Your task to perform on an android device: open app "Google Calendar" (install if not already installed) Image 0: 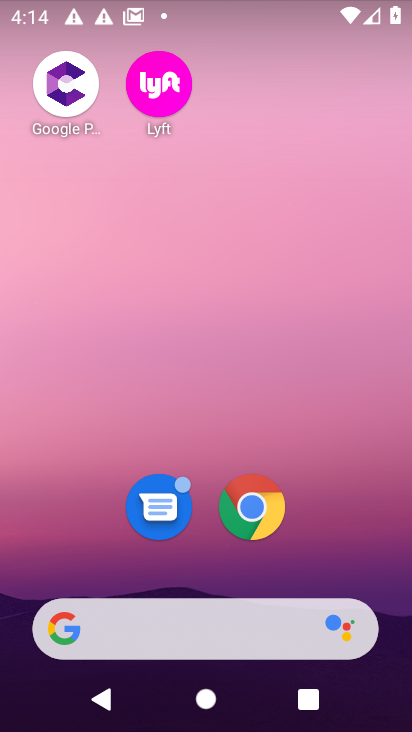
Step 0: drag from (330, 445) to (273, 9)
Your task to perform on an android device: open app "Google Calendar" (install if not already installed) Image 1: 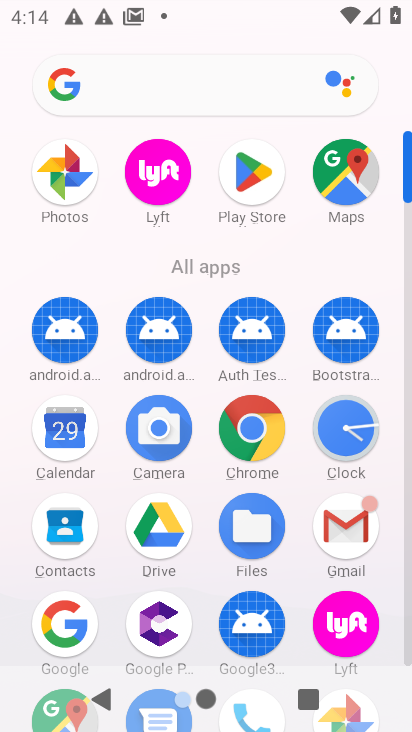
Step 1: click (243, 182)
Your task to perform on an android device: open app "Google Calendar" (install if not already installed) Image 2: 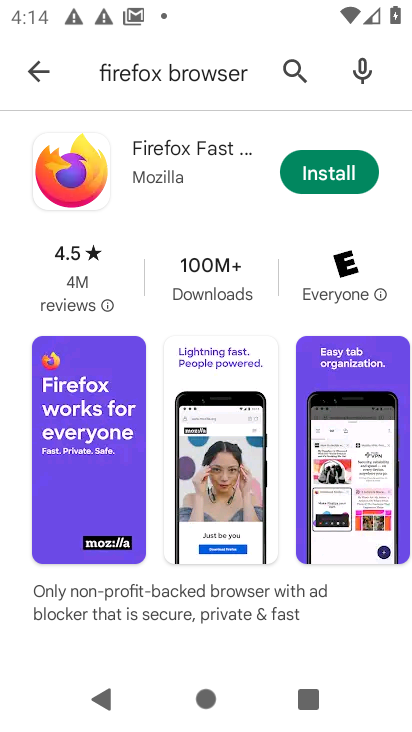
Step 2: click (286, 71)
Your task to perform on an android device: open app "Google Calendar" (install if not already installed) Image 3: 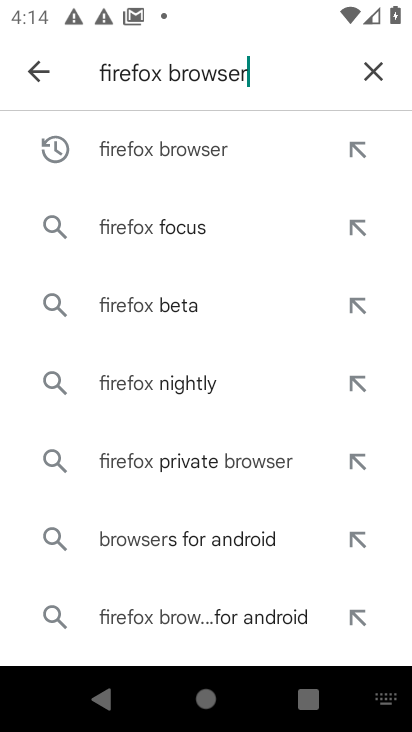
Step 3: click (373, 67)
Your task to perform on an android device: open app "Google Calendar" (install if not already installed) Image 4: 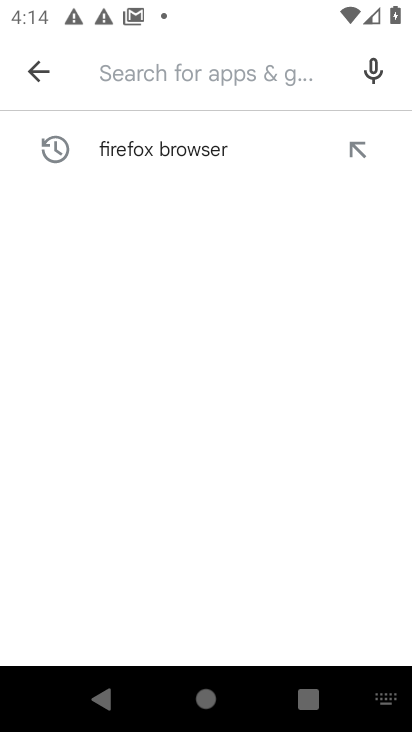
Step 4: type "Google Calendar"
Your task to perform on an android device: open app "Google Calendar" (install if not already installed) Image 5: 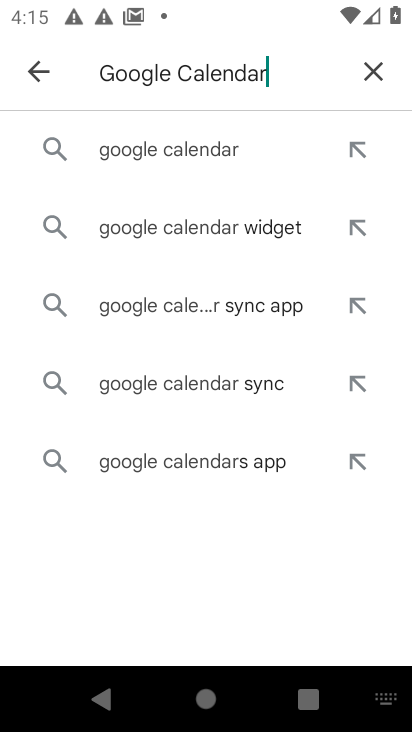
Step 5: click (152, 153)
Your task to perform on an android device: open app "Google Calendar" (install if not already installed) Image 6: 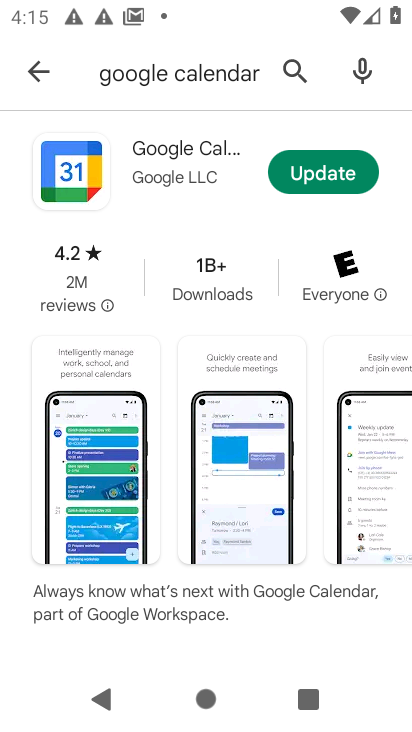
Step 6: click (95, 160)
Your task to perform on an android device: open app "Google Calendar" (install if not already installed) Image 7: 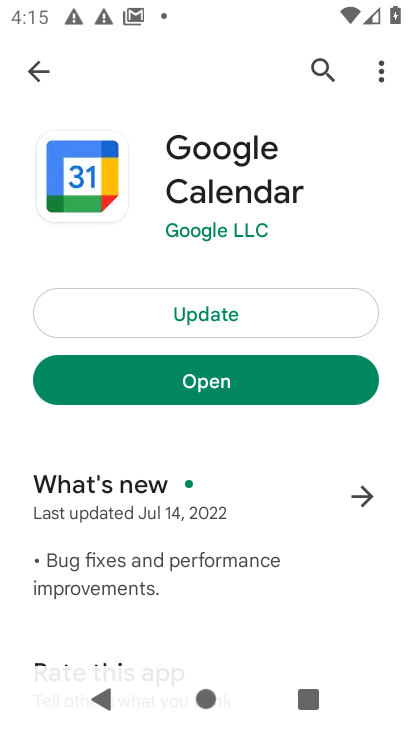
Step 7: click (165, 377)
Your task to perform on an android device: open app "Google Calendar" (install if not already installed) Image 8: 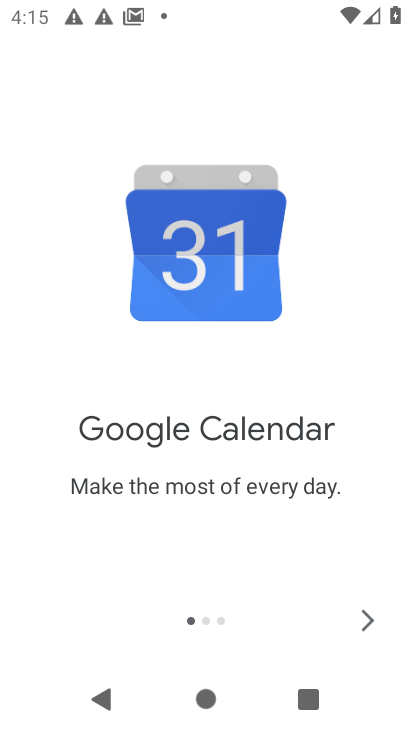
Step 8: task complete